Your task to perform on an android device: open a bookmark in the chrome app Image 0: 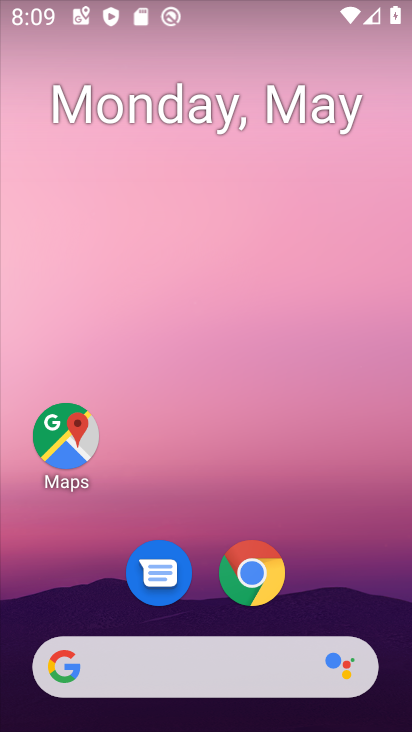
Step 0: click (269, 568)
Your task to perform on an android device: open a bookmark in the chrome app Image 1: 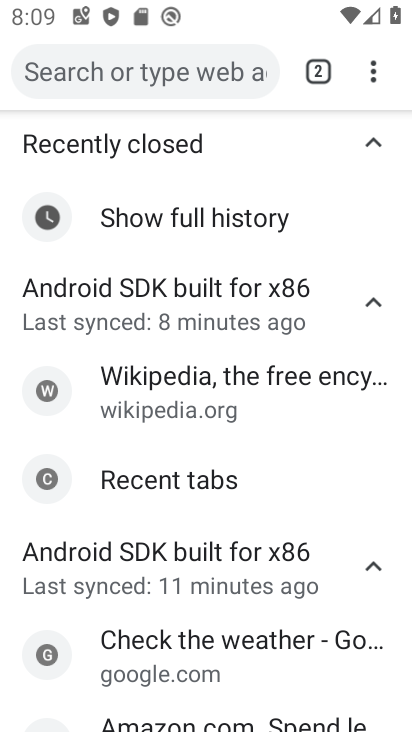
Step 1: click (368, 60)
Your task to perform on an android device: open a bookmark in the chrome app Image 2: 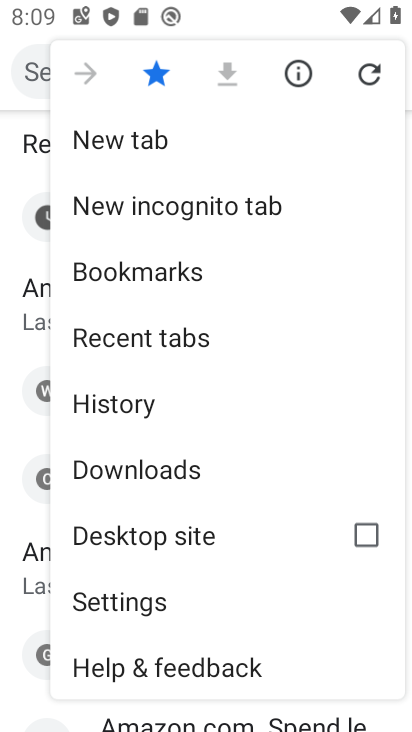
Step 2: click (151, 252)
Your task to perform on an android device: open a bookmark in the chrome app Image 3: 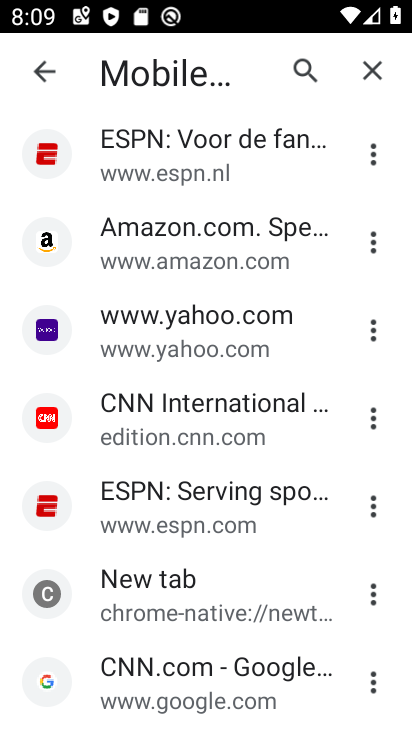
Step 3: click (151, 252)
Your task to perform on an android device: open a bookmark in the chrome app Image 4: 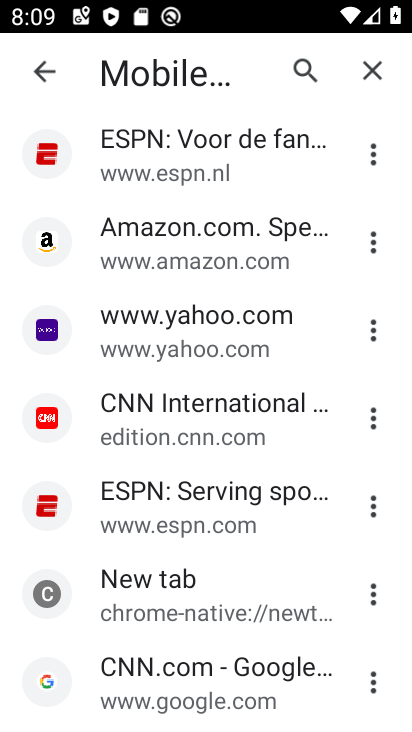
Step 4: click (151, 252)
Your task to perform on an android device: open a bookmark in the chrome app Image 5: 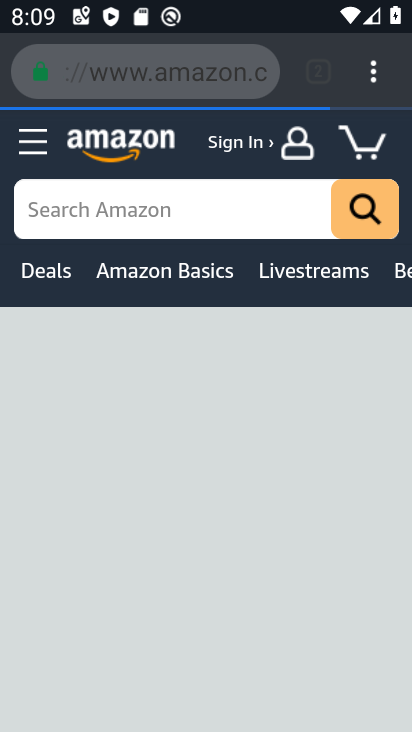
Step 5: task complete